Your task to perform on an android device: make emails show in primary in the gmail app Image 0: 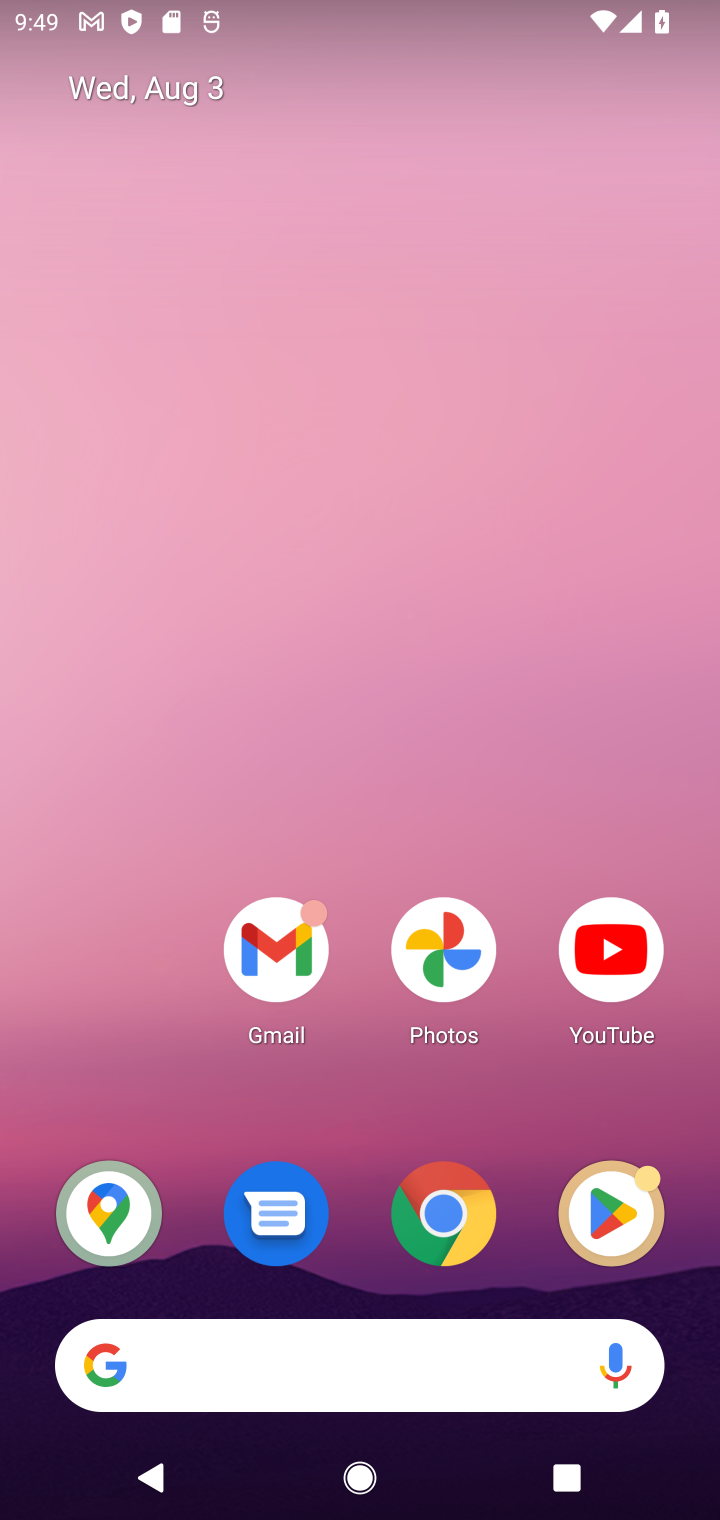
Step 0: drag from (362, 1223) to (416, 372)
Your task to perform on an android device: make emails show in primary in the gmail app Image 1: 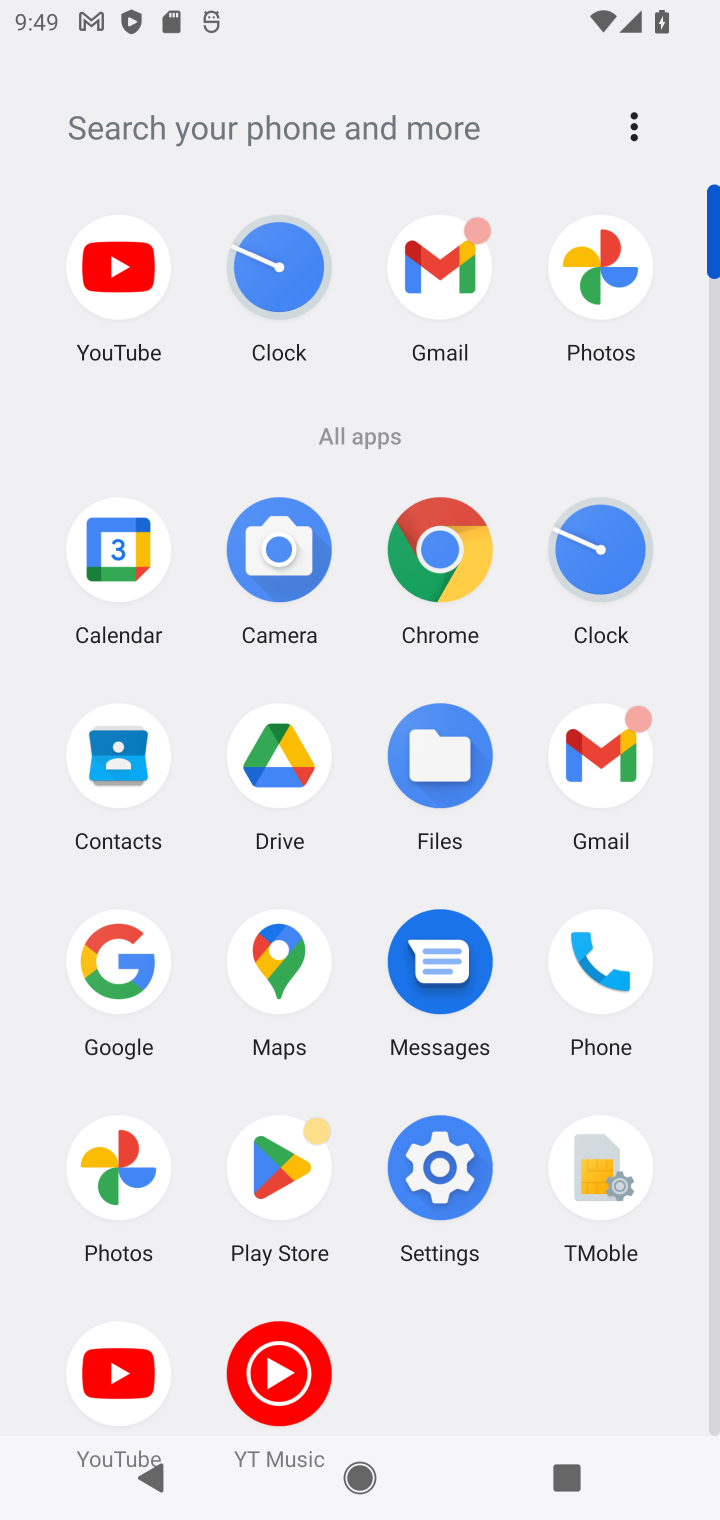
Step 1: click (607, 741)
Your task to perform on an android device: make emails show in primary in the gmail app Image 2: 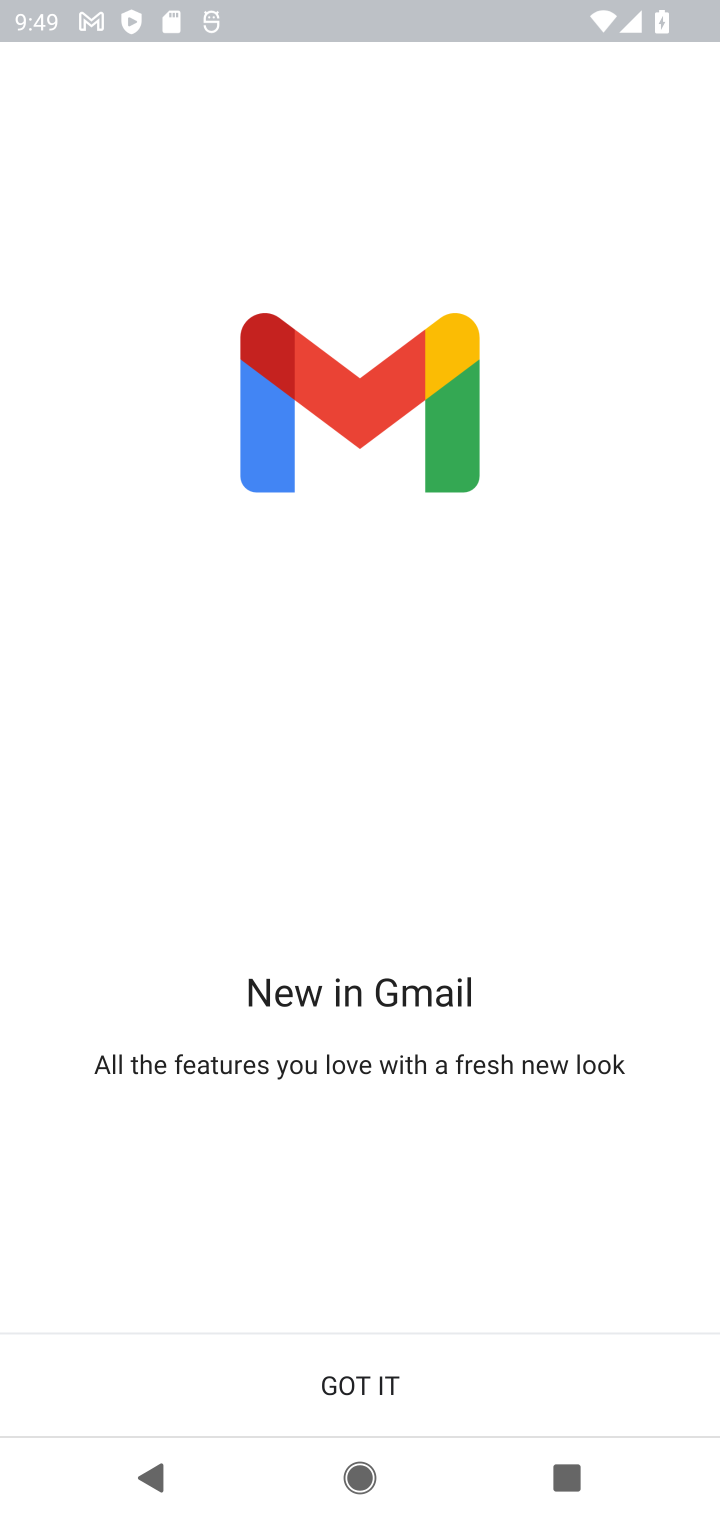
Step 2: click (307, 1372)
Your task to perform on an android device: make emails show in primary in the gmail app Image 3: 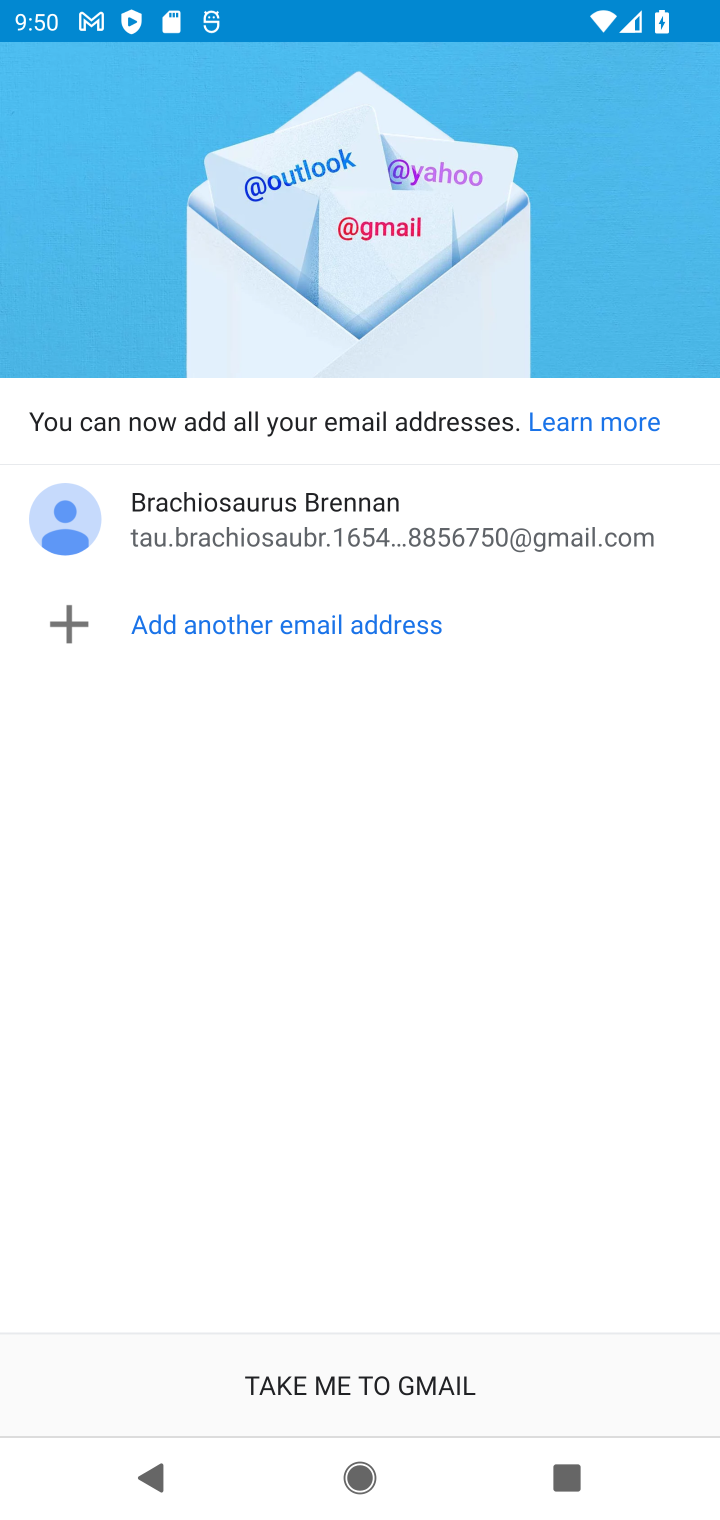
Step 3: drag from (246, 1001) to (409, 711)
Your task to perform on an android device: make emails show in primary in the gmail app Image 4: 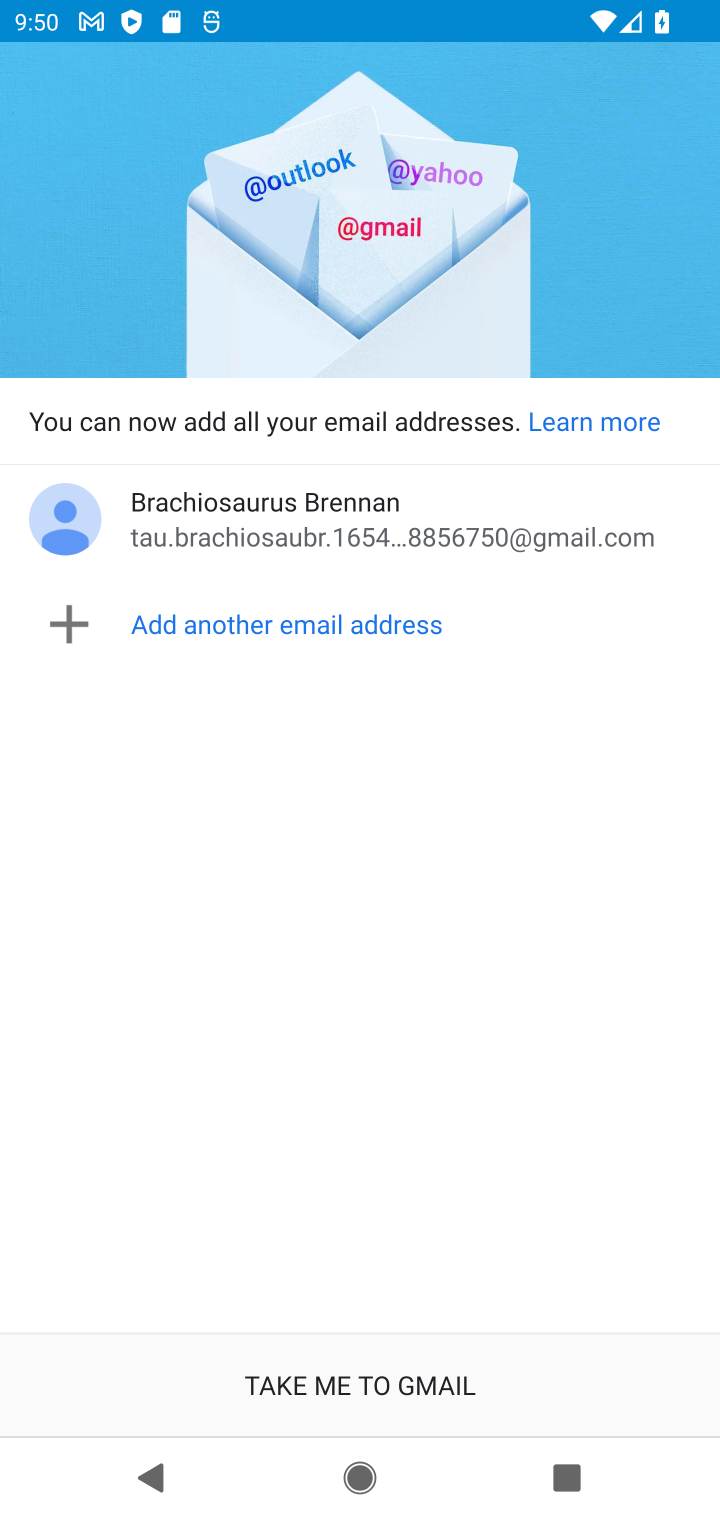
Step 4: drag from (462, 965) to (461, 1308)
Your task to perform on an android device: make emails show in primary in the gmail app Image 5: 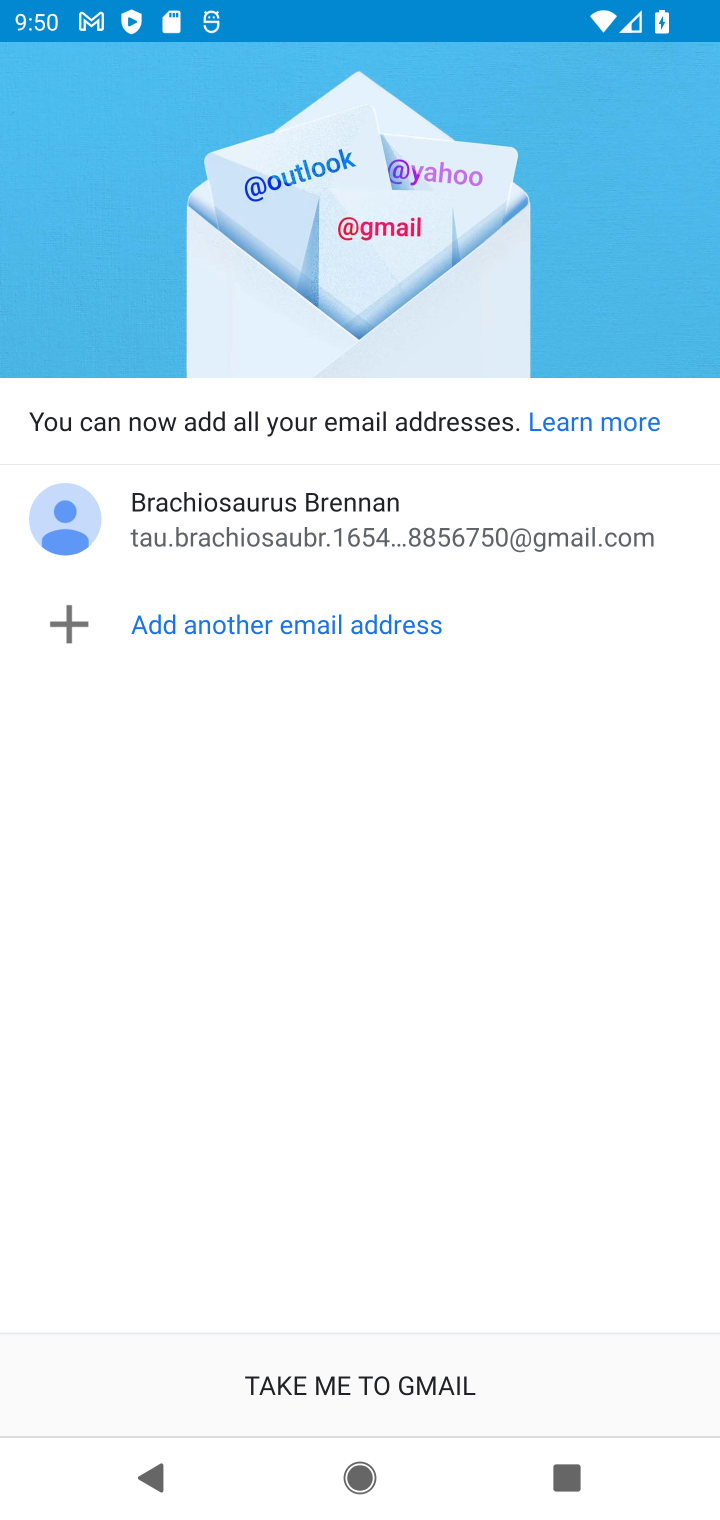
Step 5: click (313, 1362)
Your task to perform on an android device: make emails show in primary in the gmail app Image 6: 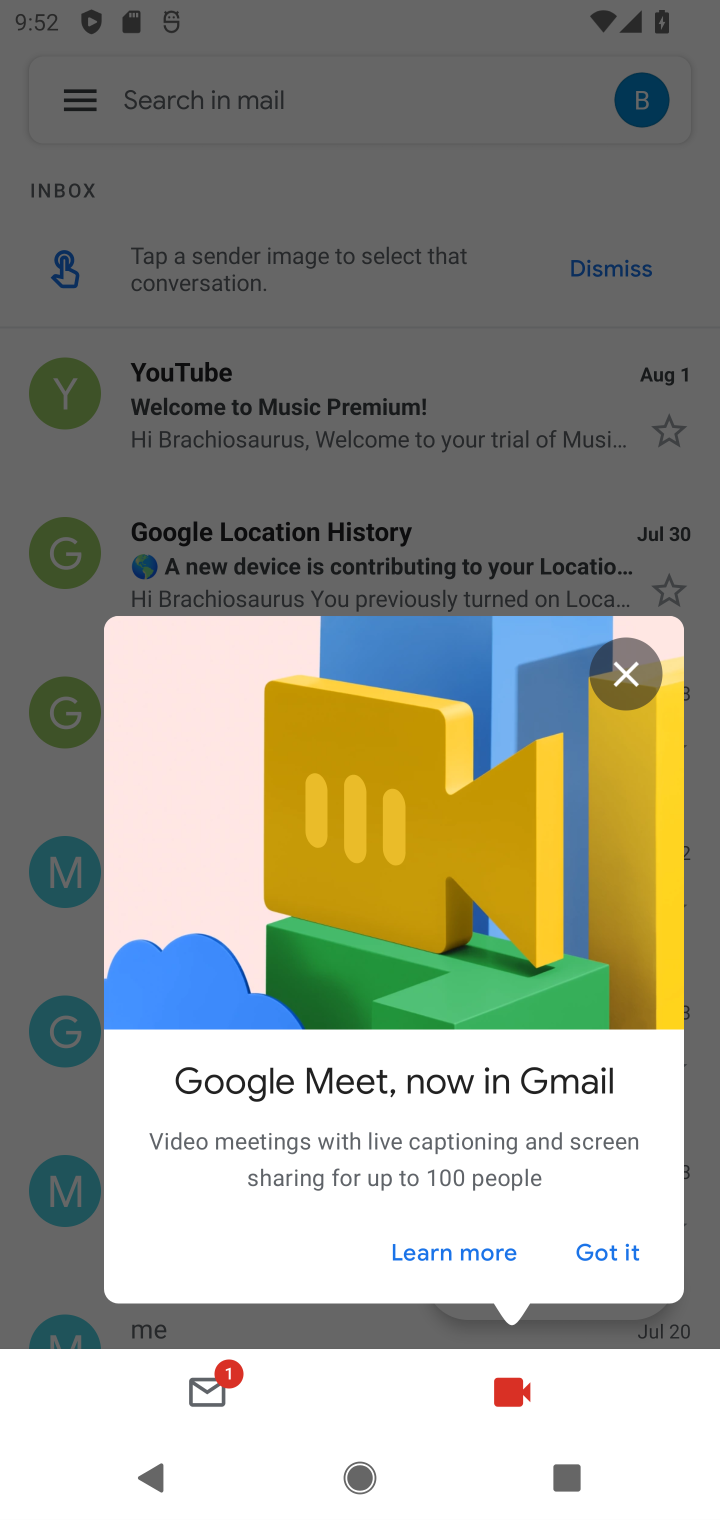
Step 6: click (573, 1258)
Your task to perform on an android device: make emails show in primary in the gmail app Image 7: 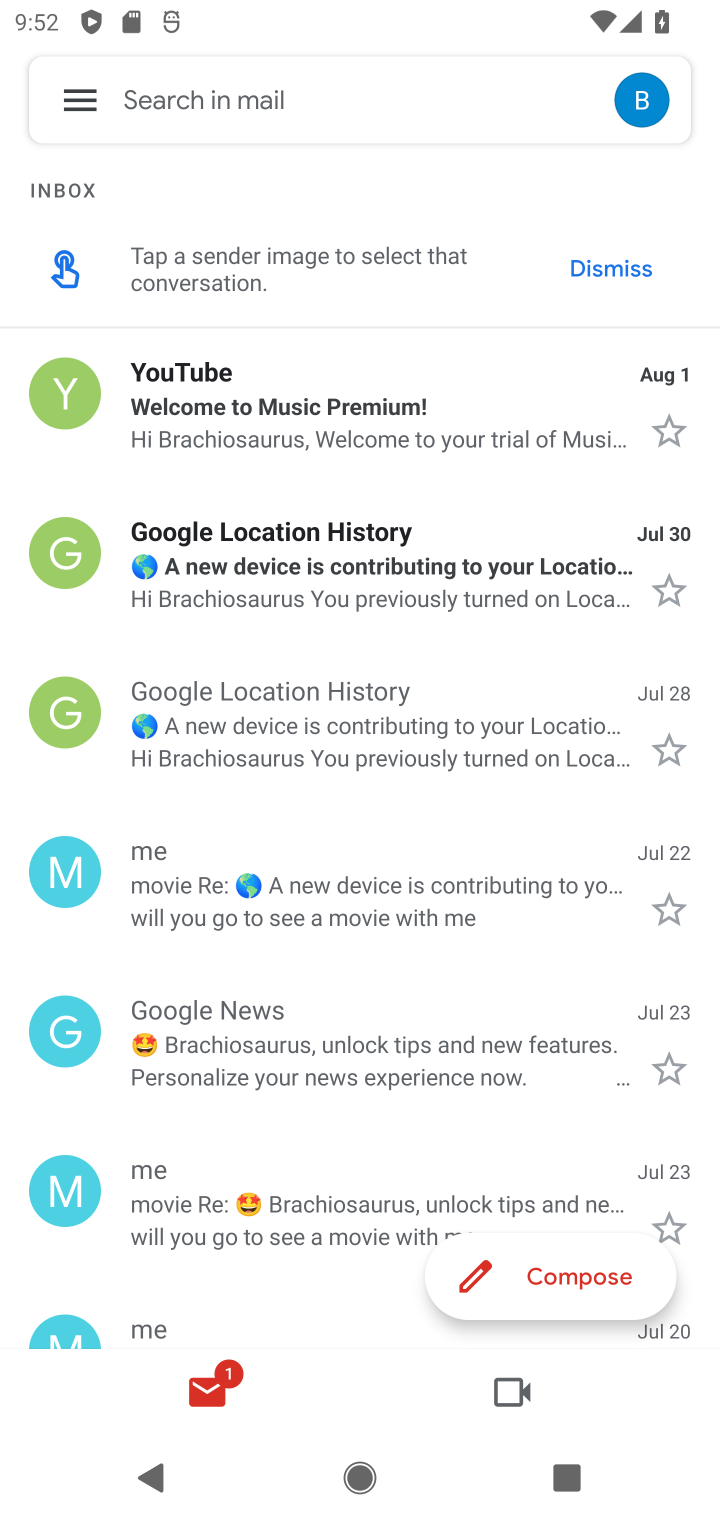
Step 7: click (52, 67)
Your task to perform on an android device: make emails show in primary in the gmail app Image 8: 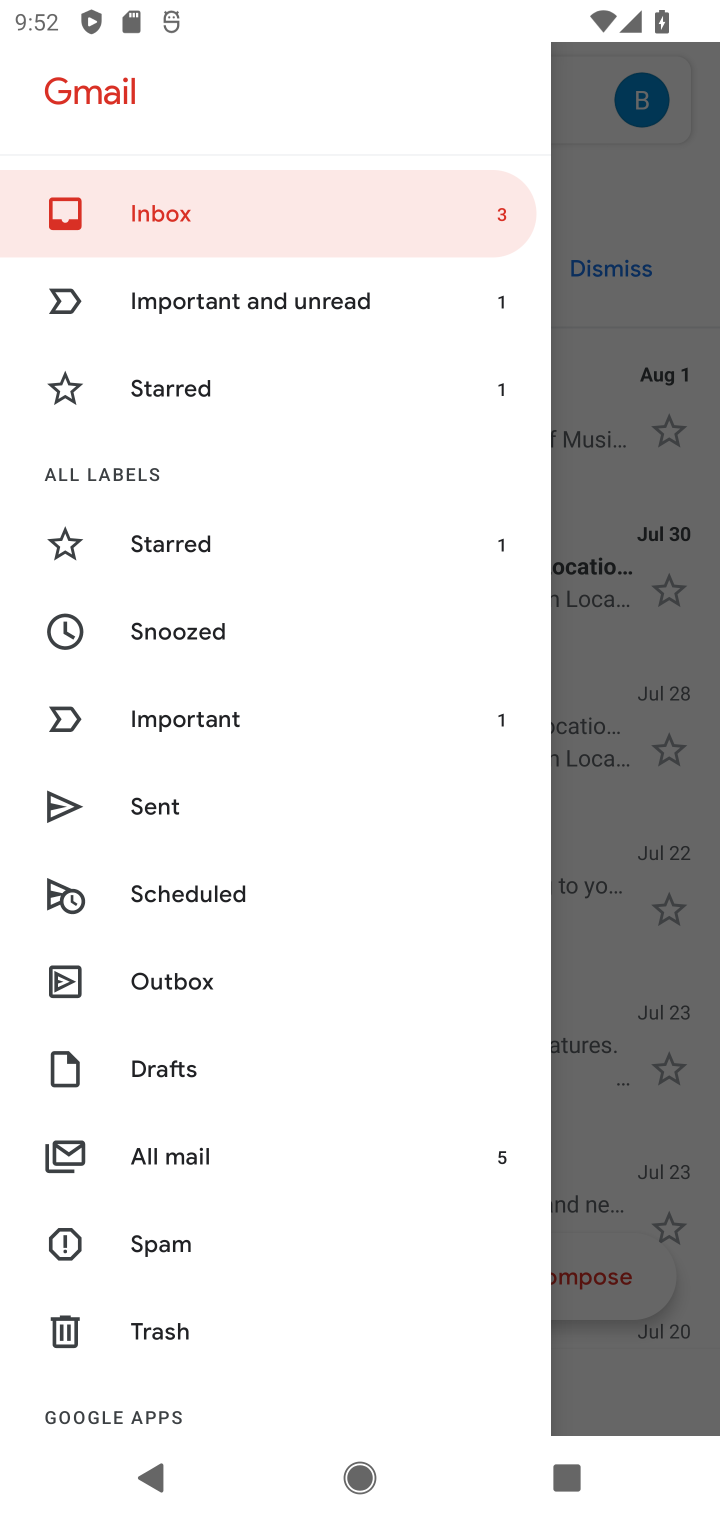
Step 8: click (126, 201)
Your task to perform on an android device: make emails show in primary in the gmail app Image 9: 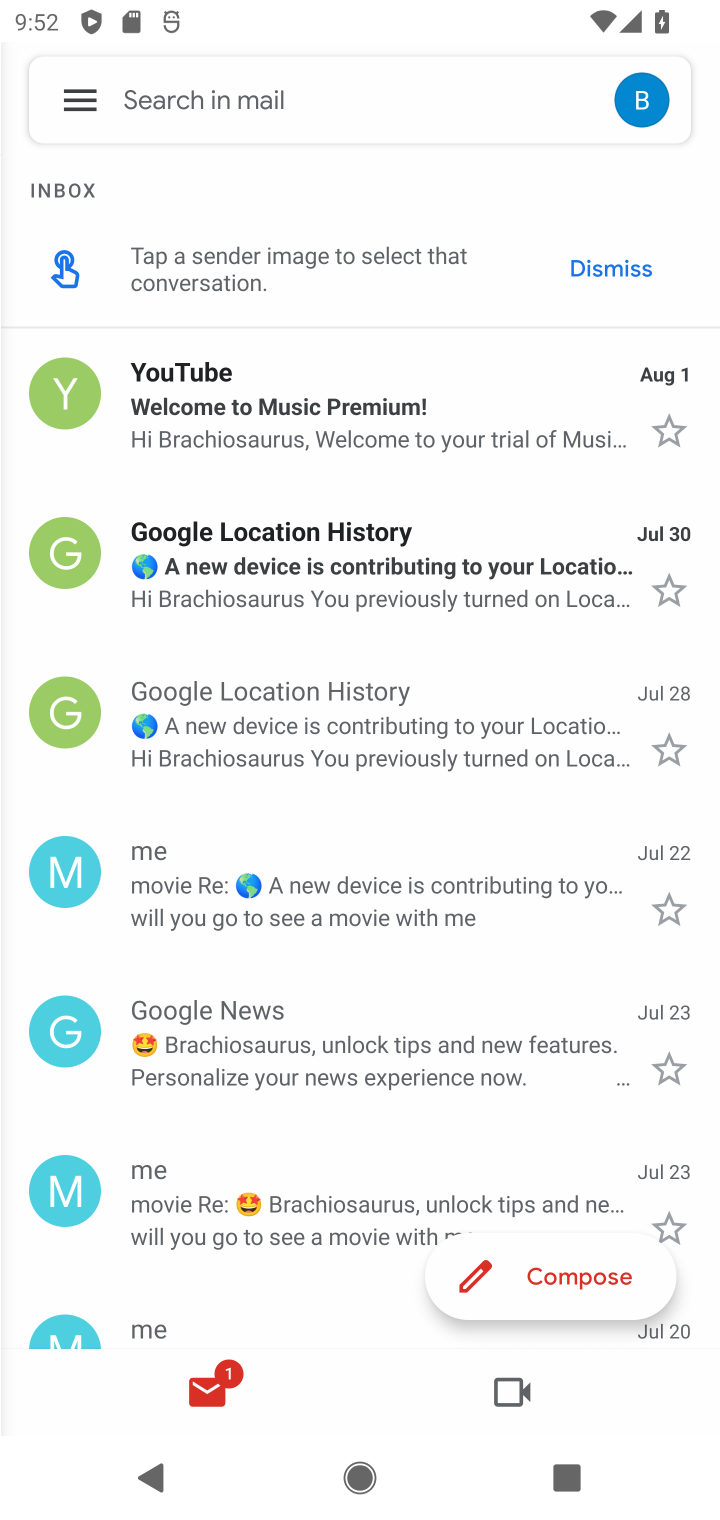
Step 9: task complete